Your task to perform on an android device: Search for Mexican restaurants on Maps Image 0: 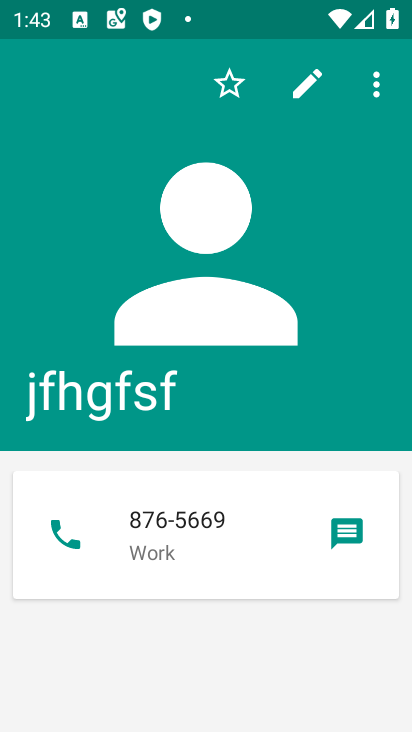
Step 0: press home button
Your task to perform on an android device: Search for Mexican restaurants on Maps Image 1: 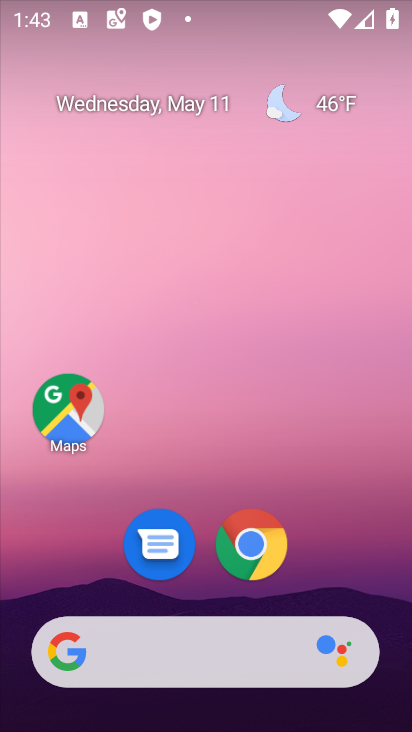
Step 1: click (68, 410)
Your task to perform on an android device: Search for Mexican restaurants on Maps Image 2: 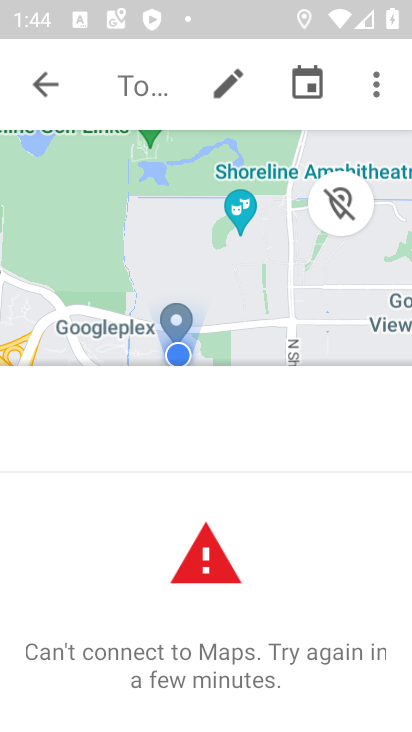
Step 2: press back button
Your task to perform on an android device: Search for Mexican restaurants on Maps Image 3: 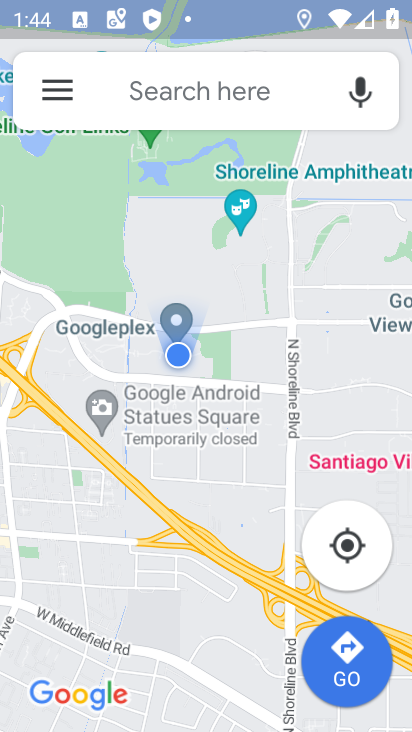
Step 3: click (142, 85)
Your task to perform on an android device: Search for Mexican restaurants on Maps Image 4: 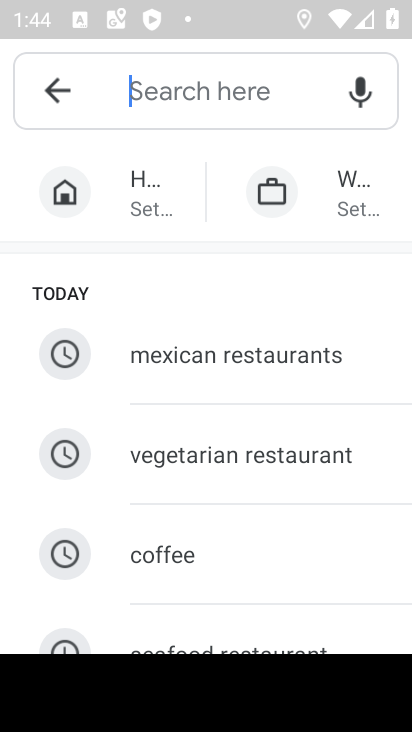
Step 4: type "mexican restaurants"
Your task to perform on an android device: Search for Mexican restaurants on Maps Image 5: 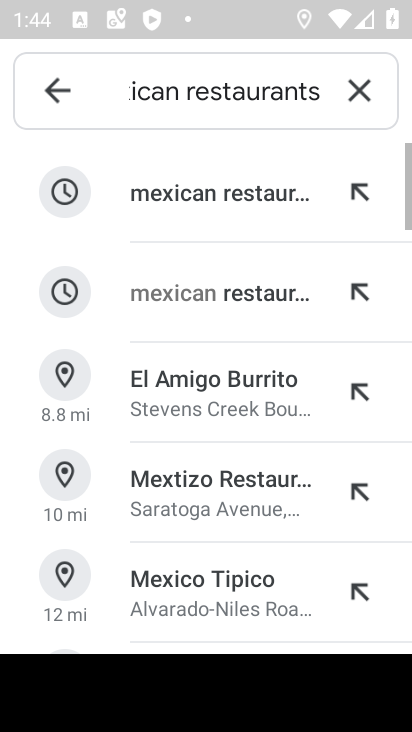
Step 5: click (176, 186)
Your task to perform on an android device: Search for Mexican restaurants on Maps Image 6: 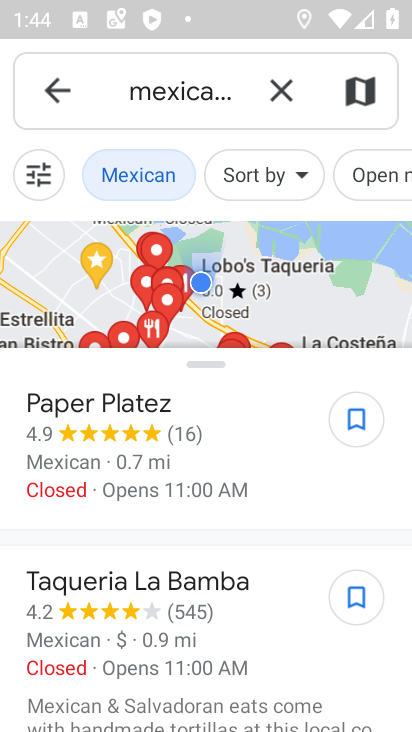
Step 6: task complete